Your task to perform on an android device: clear all cookies in the chrome app Image 0: 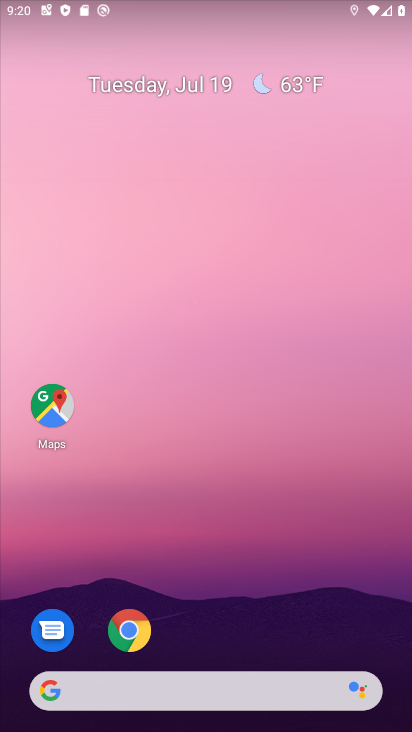
Step 0: click (127, 628)
Your task to perform on an android device: clear all cookies in the chrome app Image 1: 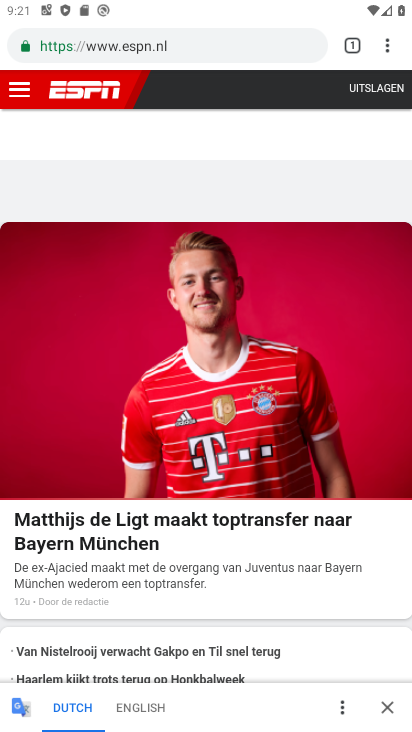
Step 1: click (386, 47)
Your task to perform on an android device: clear all cookies in the chrome app Image 2: 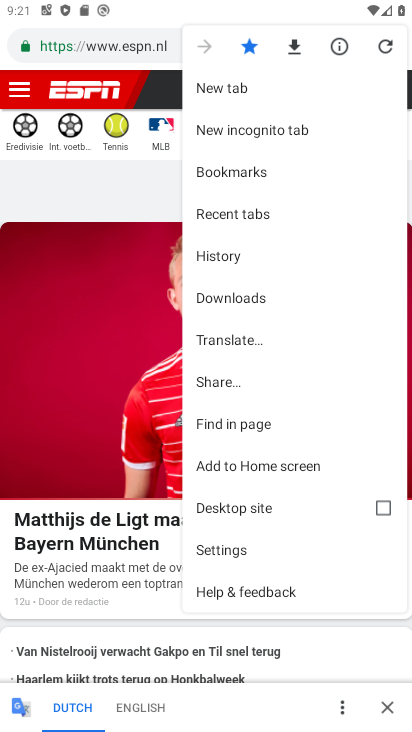
Step 2: click (219, 547)
Your task to perform on an android device: clear all cookies in the chrome app Image 3: 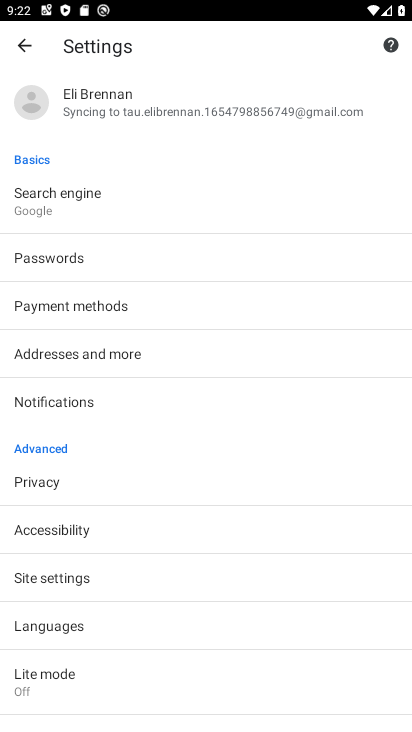
Step 3: click (44, 483)
Your task to perform on an android device: clear all cookies in the chrome app Image 4: 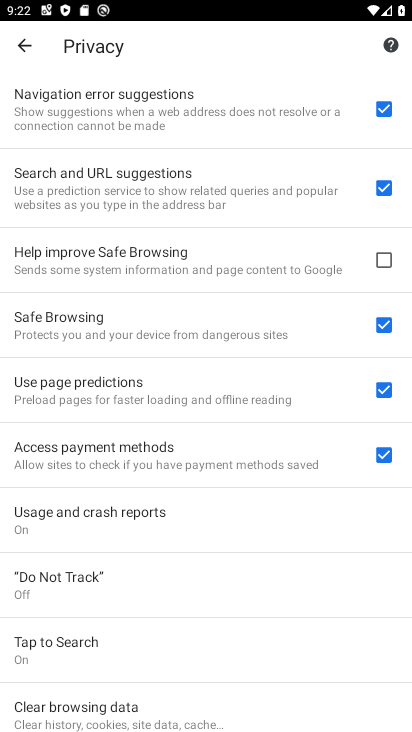
Step 4: click (92, 708)
Your task to perform on an android device: clear all cookies in the chrome app Image 5: 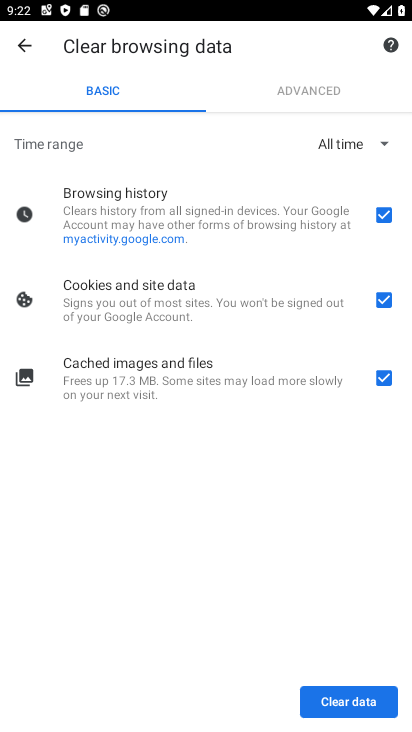
Step 5: click (380, 208)
Your task to perform on an android device: clear all cookies in the chrome app Image 6: 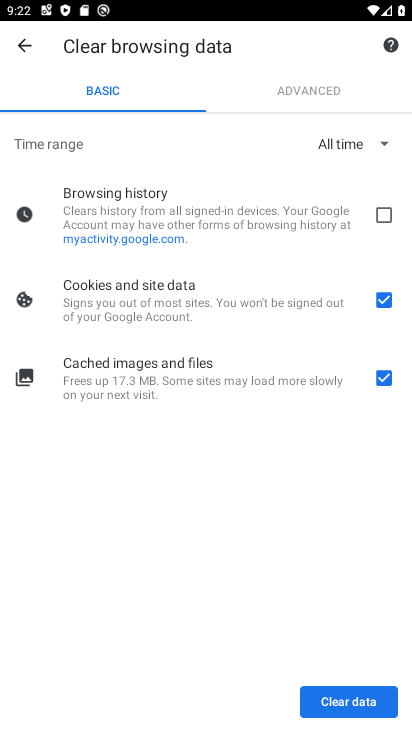
Step 6: click (389, 379)
Your task to perform on an android device: clear all cookies in the chrome app Image 7: 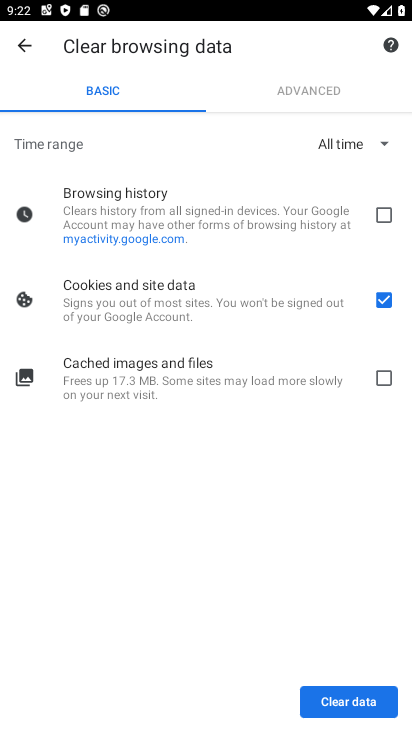
Step 7: click (350, 702)
Your task to perform on an android device: clear all cookies in the chrome app Image 8: 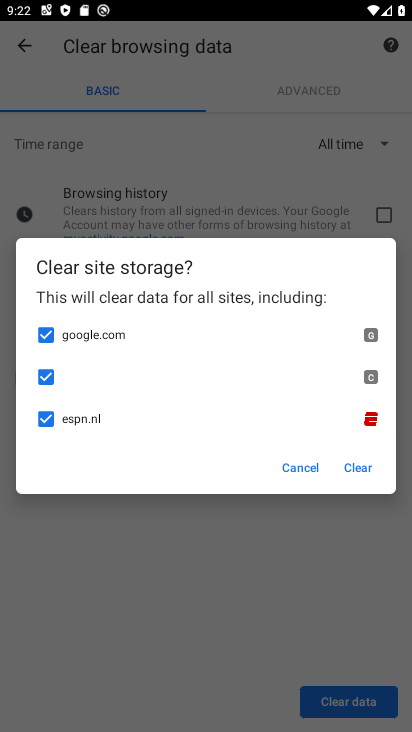
Step 8: click (359, 468)
Your task to perform on an android device: clear all cookies in the chrome app Image 9: 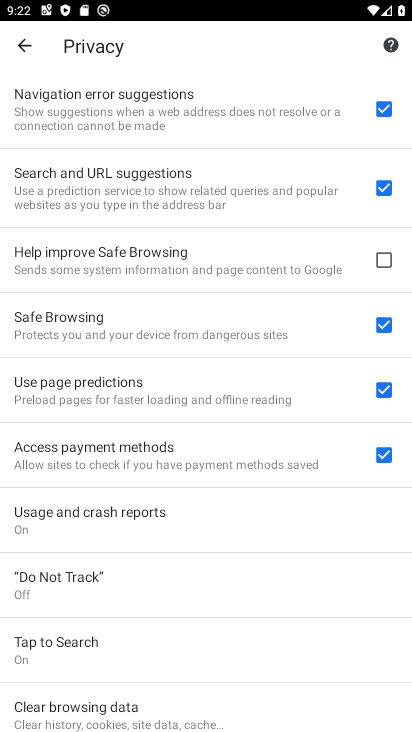
Step 9: task complete